Your task to perform on an android device: check out phone information Image 0: 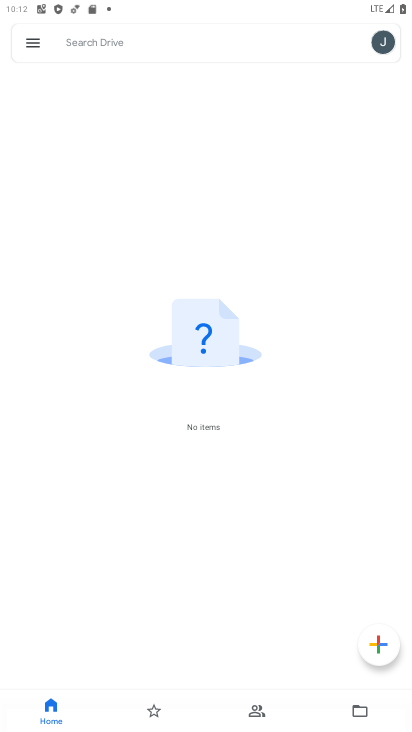
Step 0: press home button
Your task to perform on an android device: check out phone information Image 1: 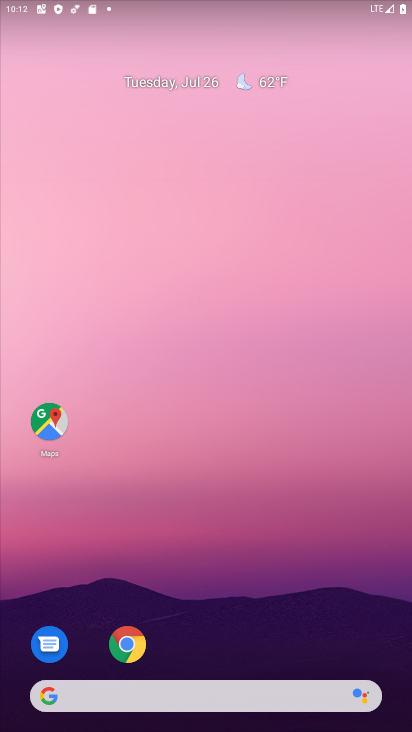
Step 1: drag from (223, 652) to (208, 8)
Your task to perform on an android device: check out phone information Image 2: 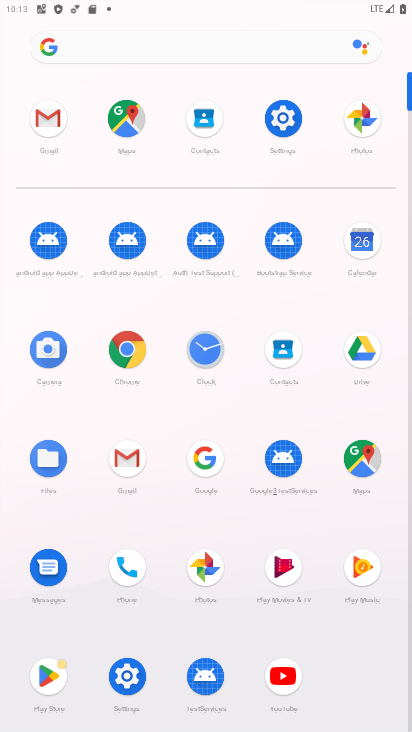
Step 2: click (285, 121)
Your task to perform on an android device: check out phone information Image 3: 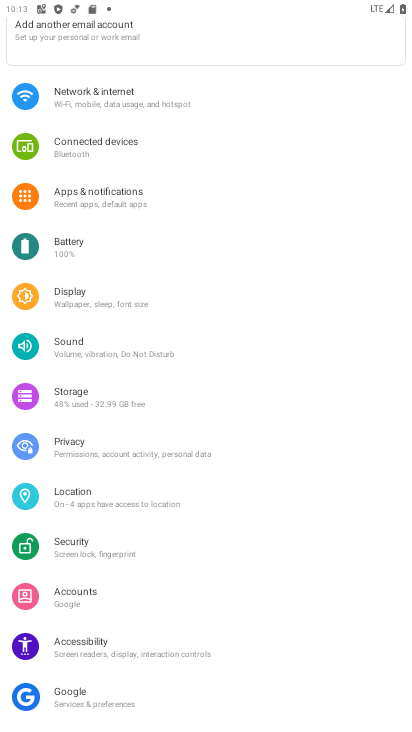
Step 3: drag from (263, 657) to (237, 86)
Your task to perform on an android device: check out phone information Image 4: 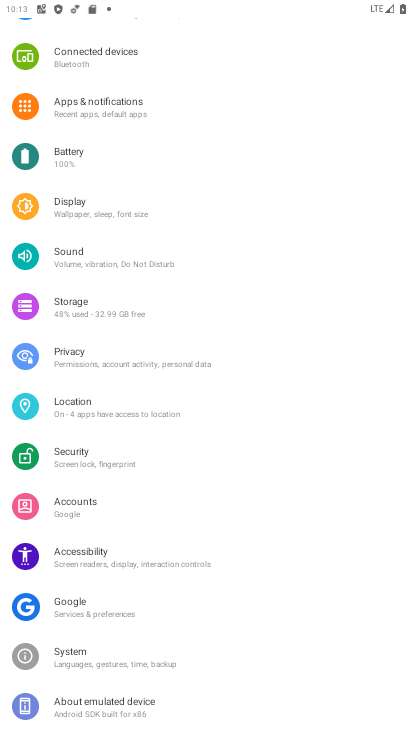
Step 4: click (131, 707)
Your task to perform on an android device: check out phone information Image 5: 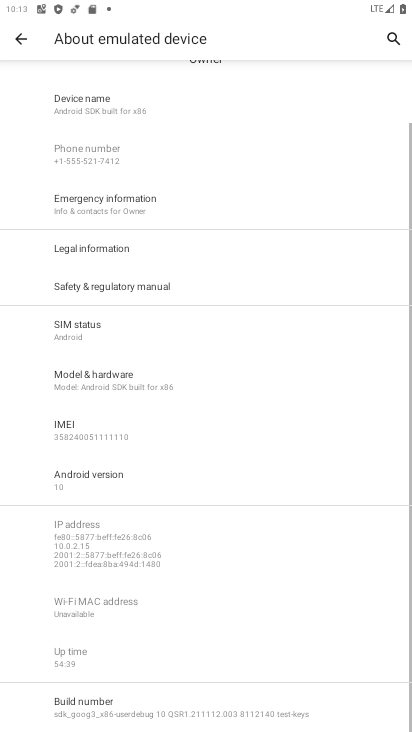
Step 5: task complete